Your task to perform on an android device: open chrome privacy settings Image 0: 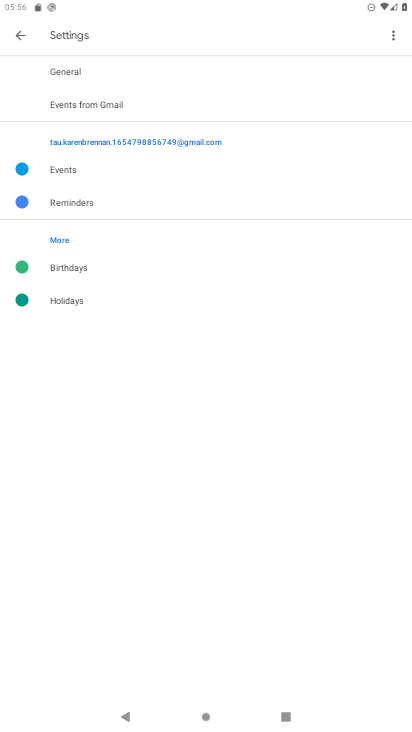
Step 0: press home button
Your task to perform on an android device: open chrome privacy settings Image 1: 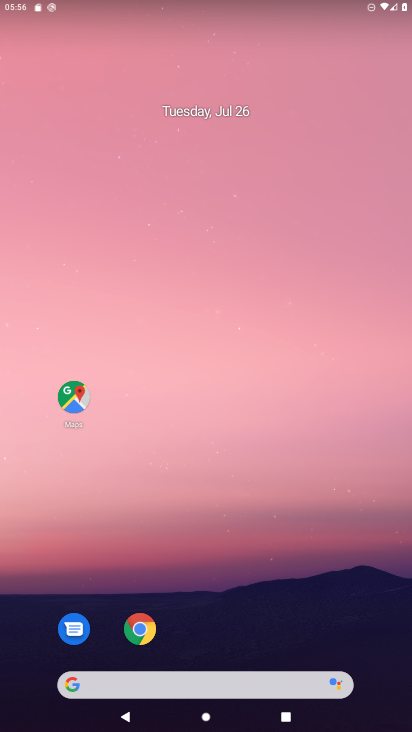
Step 1: click (135, 633)
Your task to perform on an android device: open chrome privacy settings Image 2: 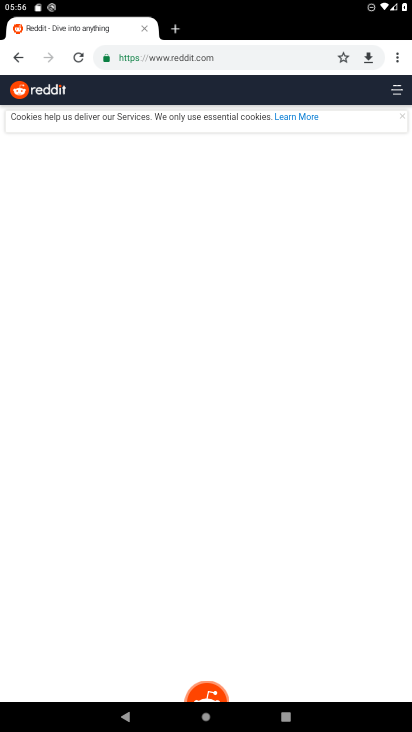
Step 2: click (396, 60)
Your task to perform on an android device: open chrome privacy settings Image 3: 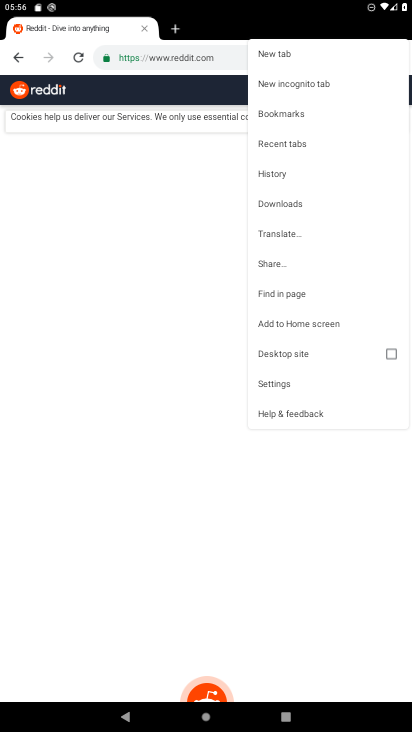
Step 3: click (279, 380)
Your task to perform on an android device: open chrome privacy settings Image 4: 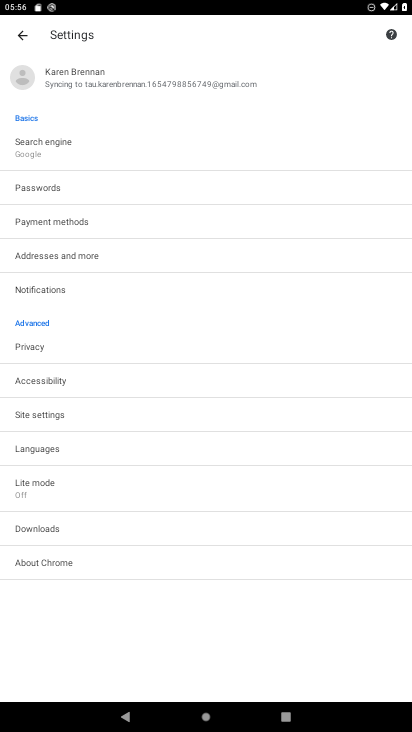
Step 4: click (35, 341)
Your task to perform on an android device: open chrome privacy settings Image 5: 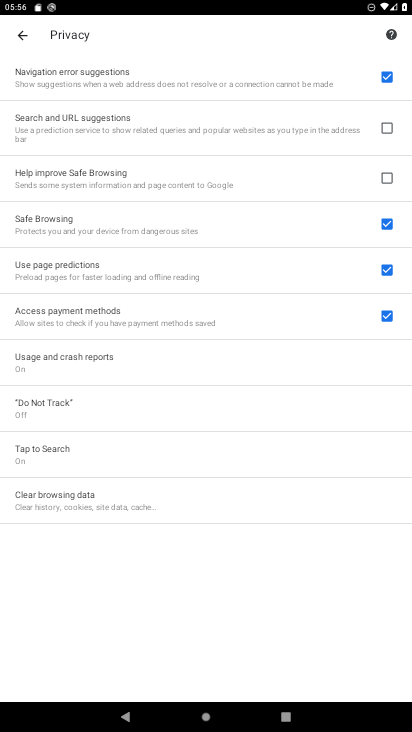
Step 5: task complete